Your task to perform on an android device: check google app version Image 0: 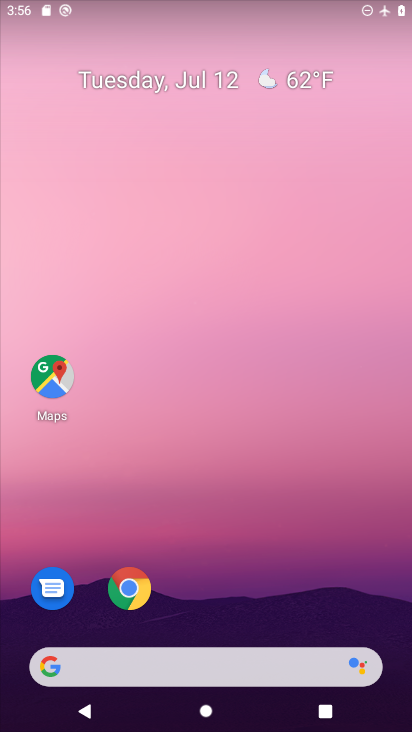
Step 0: click (49, 667)
Your task to perform on an android device: check google app version Image 1: 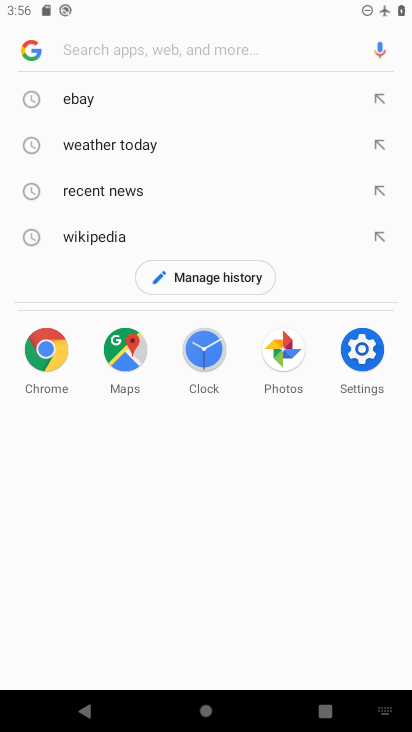
Step 1: click (30, 42)
Your task to perform on an android device: check google app version Image 2: 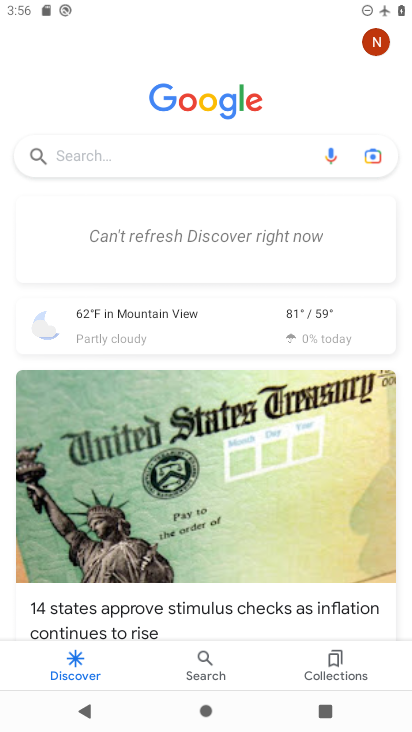
Step 2: click (375, 39)
Your task to perform on an android device: check google app version Image 3: 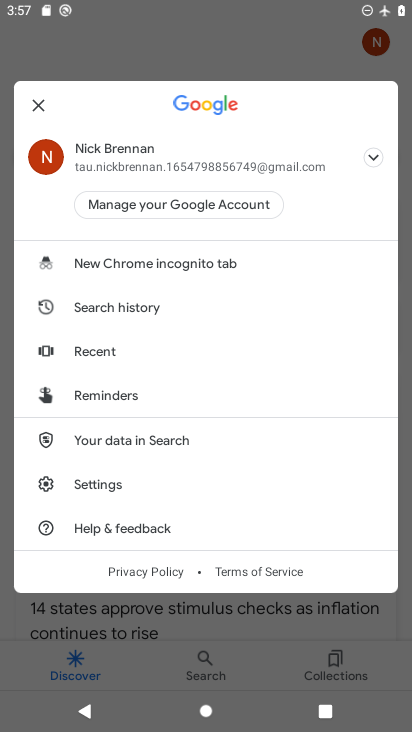
Step 3: click (92, 479)
Your task to perform on an android device: check google app version Image 4: 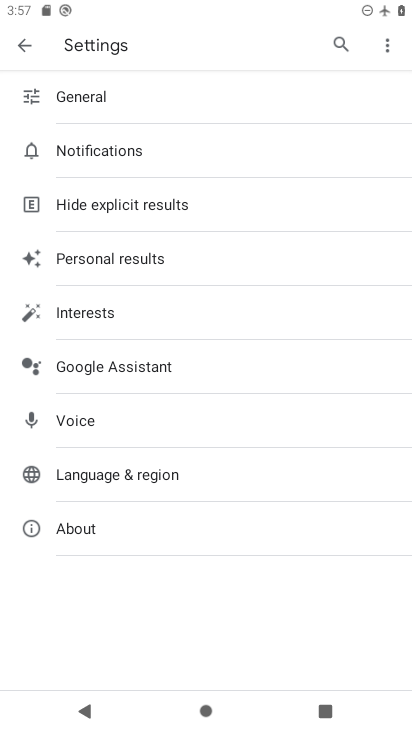
Step 4: click (95, 534)
Your task to perform on an android device: check google app version Image 5: 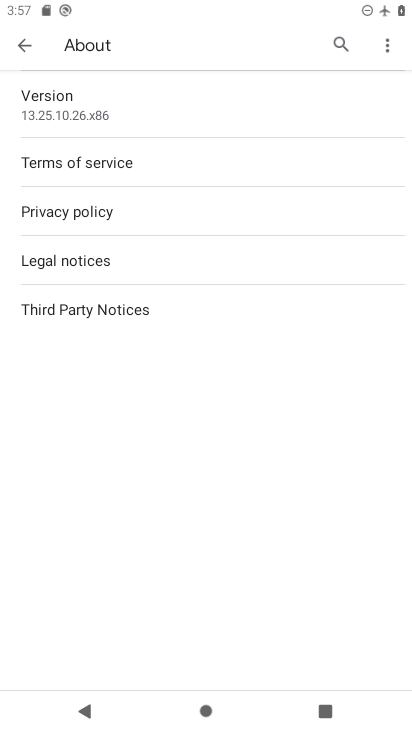
Step 5: task complete